Your task to perform on an android device: Go to battery settings Image 0: 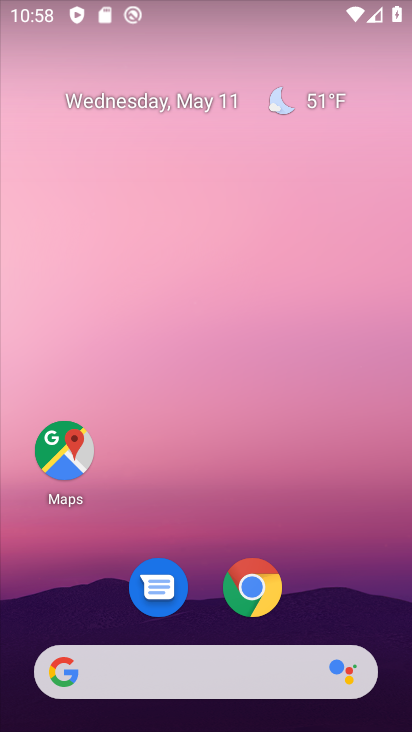
Step 0: drag from (183, 576) to (312, 51)
Your task to perform on an android device: Go to battery settings Image 1: 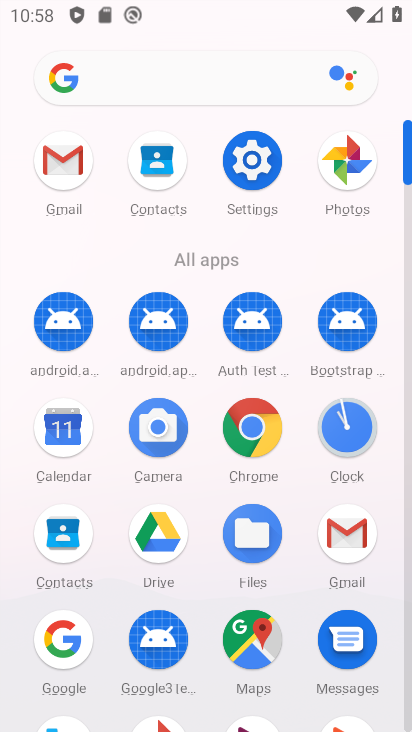
Step 1: click (247, 154)
Your task to perform on an android device: Go to battery settings Image 2: 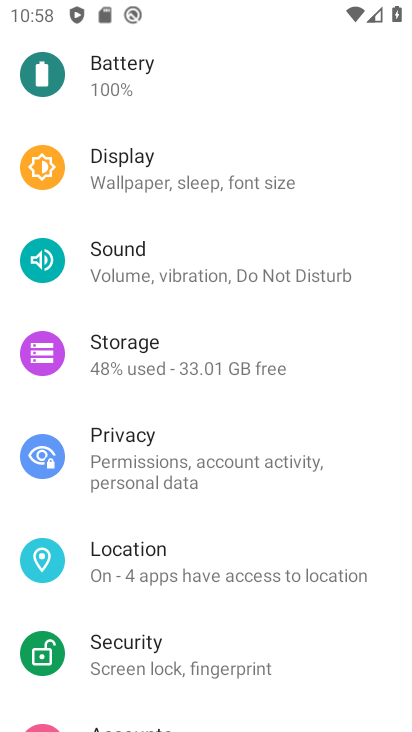
Step 2: click (151, 82)
Your task to perform on an android device: Go to battery settings Image 3: 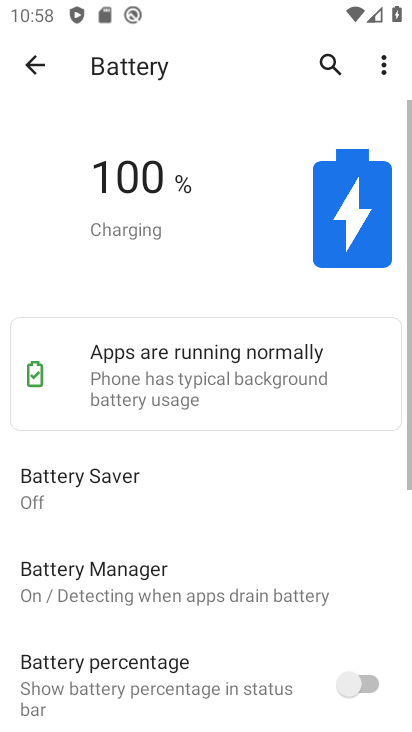
Step 3: task complete